Your task to perform on an android device: open a bookmark in the chrome app Image 0: 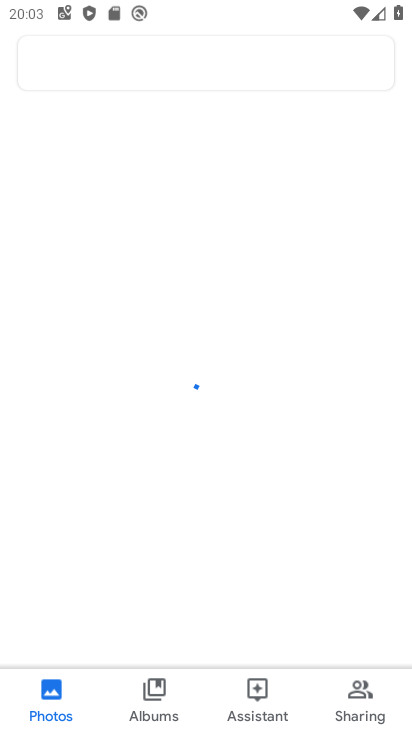
Step 0: press home button
Your task to perform on an android device: open a bookmark in the chrome app Image 1: 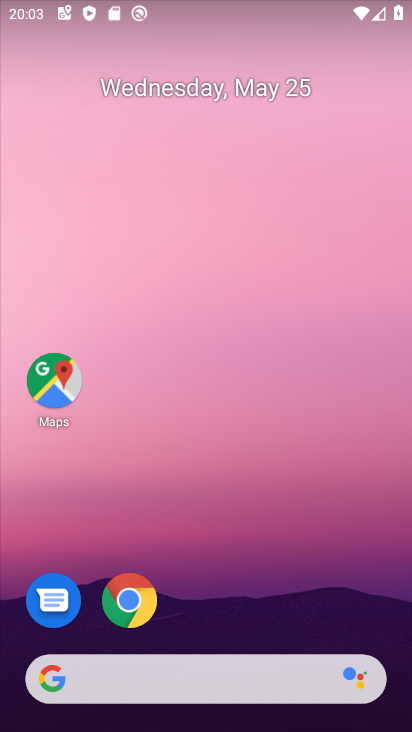
Step 1: drag from (384, 580) to (395, 232)
Your task to perform on an android device: open a bookmark in the chrome app Image 2: 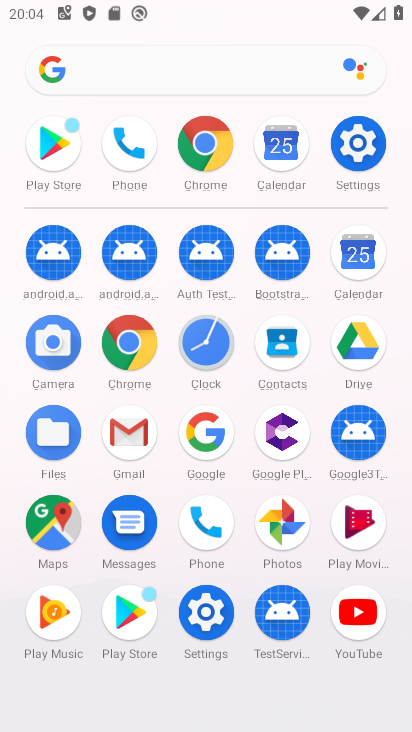
Step 2: click (135, 338)
Your task to perform on an android device: open a bookmark in the chrome app Image 3: 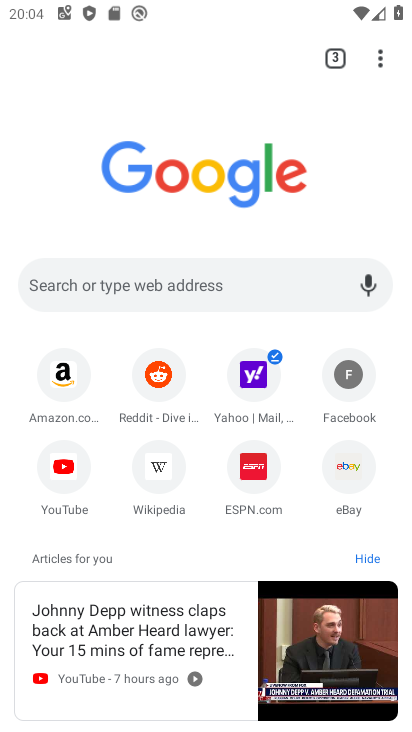
Step 3: task complete